Your task to perform on an android device: delete browsing data in the chrome app Image 0: 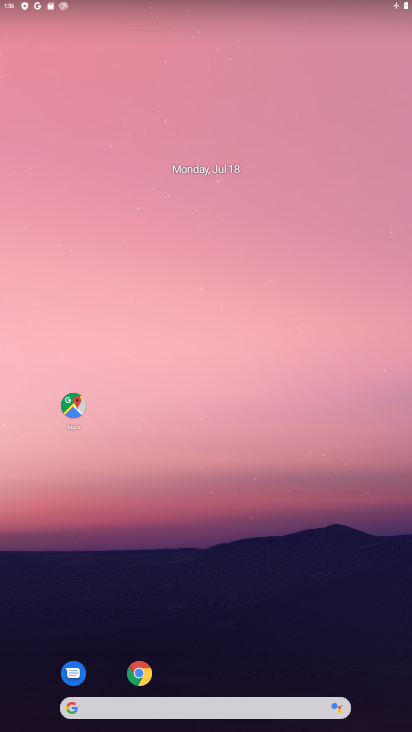
Step 0: click (140, 671)
Your task to perform on an android device: delete browsing data in the chrome app Image 1: 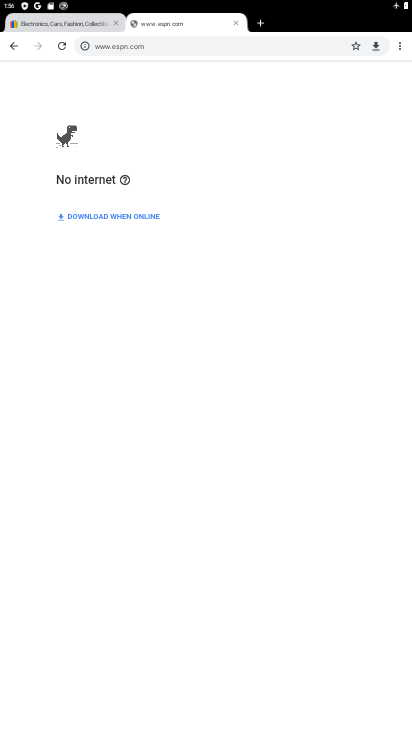
Step 1: click (399, 46)
Your task to perform on an android device: delete browsing data in the chrome app Image 2: 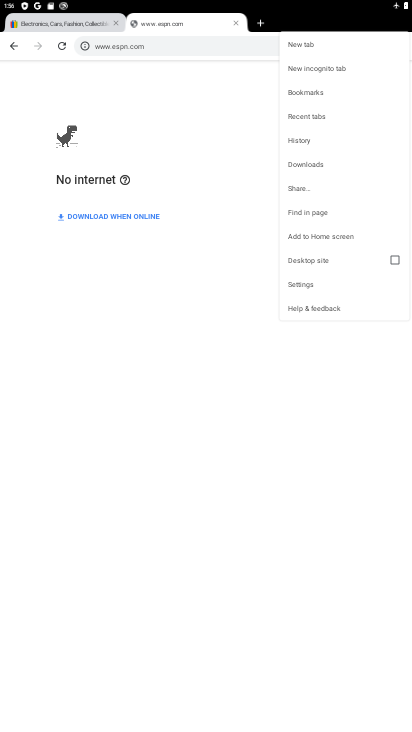
Step 2: click (308, 283)
Your task to perform on an android device: delete browsing data in the chrome app Image 3: 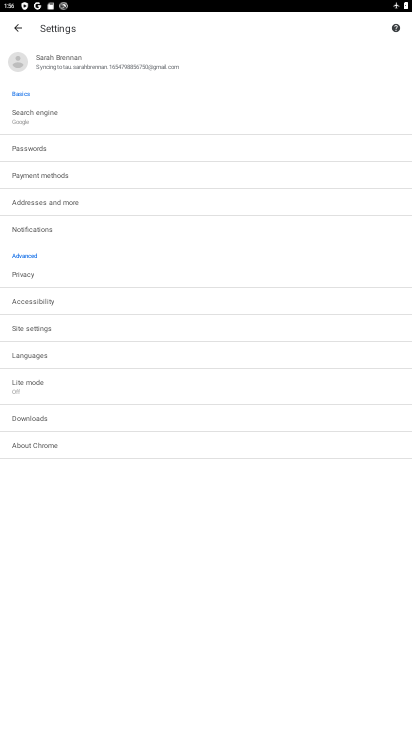
Step 3: click (28, 279)
Your task to perform on an android device: delete browsing data in the chrome app Image 4: 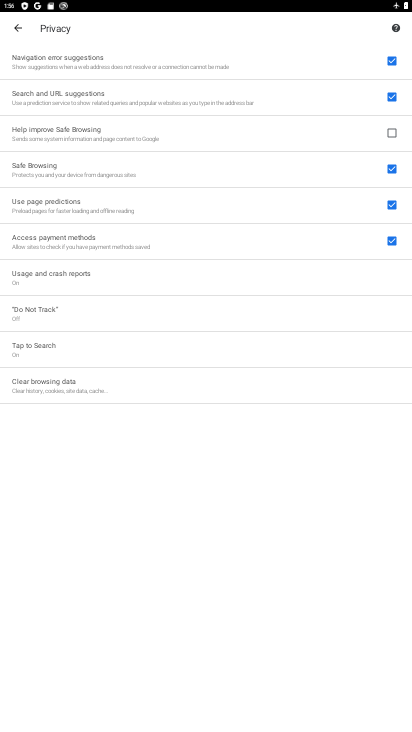
Step 4: click (56, 385)
Your task to perform on an android device: delete browsing data in the chrome app Image 5: 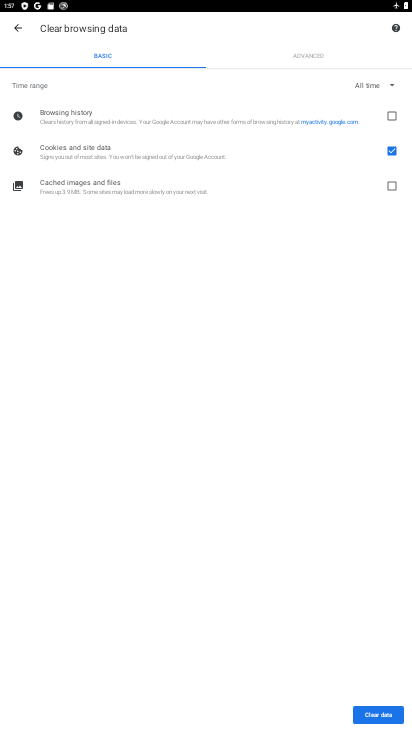
Step 5: click (389, 114)
Your task to perform on an android device: delete browsing data in the chrome app Image 6: 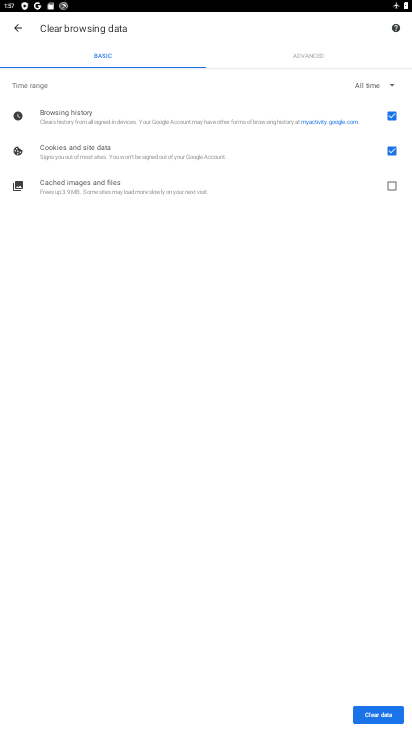
Step 6: click (392, 184)
Your task to perform on an android device: delete browsing data in the chrome app Image 7: 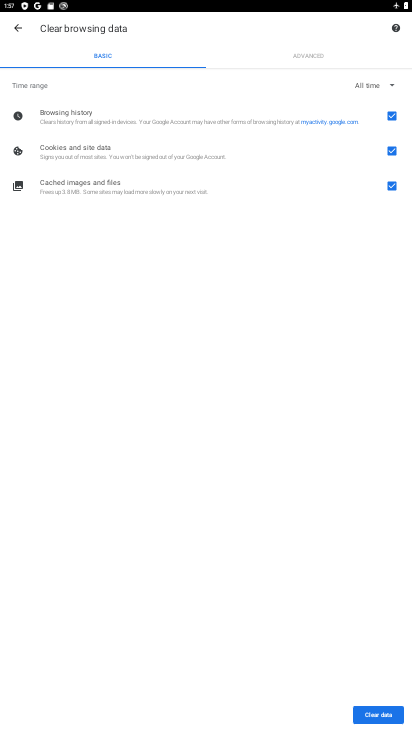
Step 7: click (369, 712)
Your task to perform on an android device: delete browsing data in the chrome app Image 8: 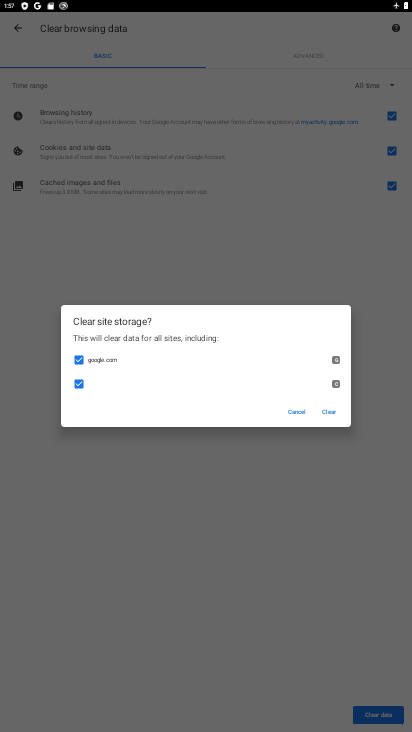
Step 8: click (331, 409)
Your task to perform on an android device: delete browsing data in the chrome app Image 9: 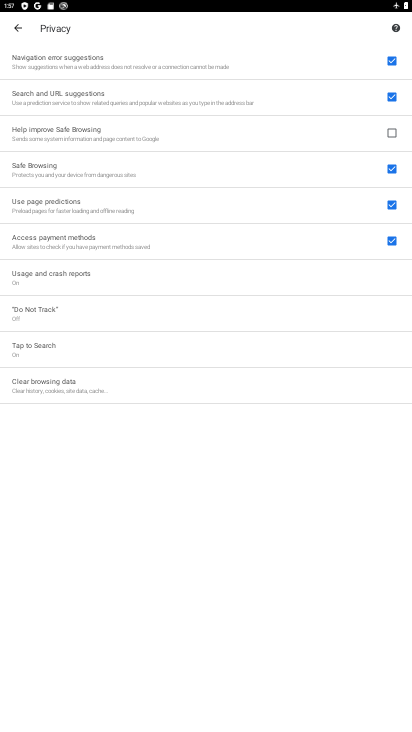
Step 9: task complete